Your task to perform on an android device: What's on my calendar tomorrow? Image 0: 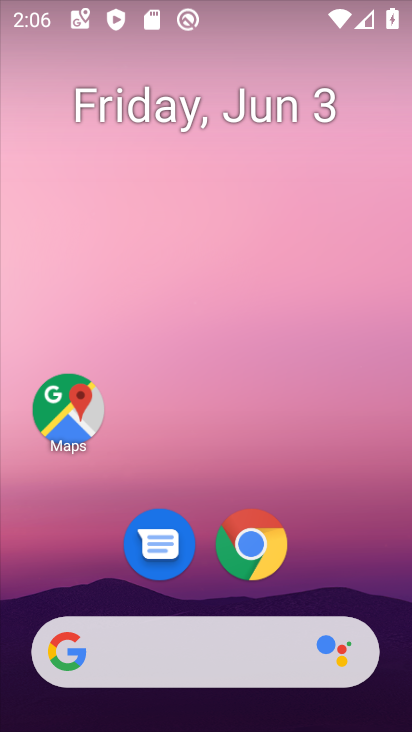
Step 0: drag from (320, 539) to (295, 196)
Your task to perform on an android device: What's on my calendar tomorrow? Image 1: 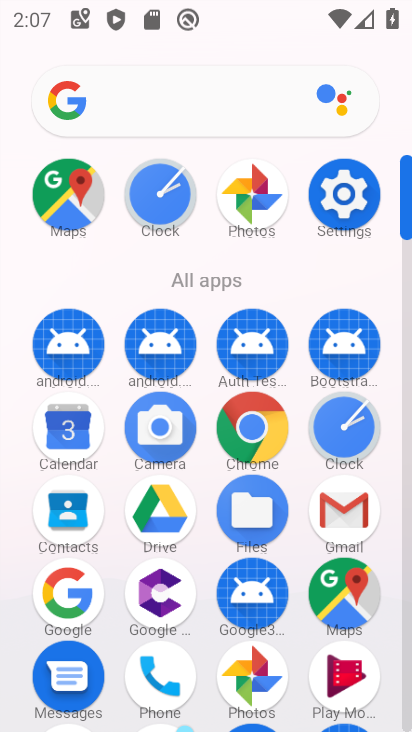
Step 1: click (79, 431)
Your task to perform on an android device: What's on my calendar tomorrow? Image 2: 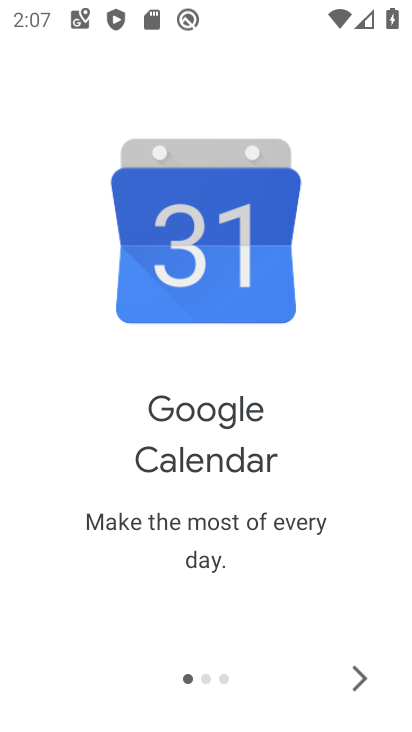
Step 2: click (380, 679)
Your task to perform on an android device: What's on my calendar tomorrow? Image 3: 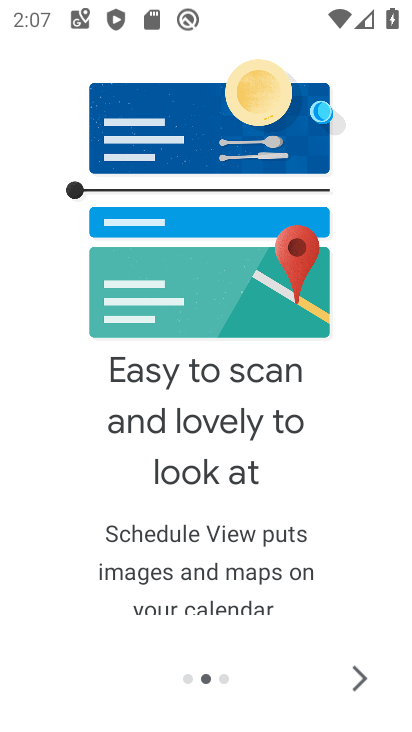
Step 3: click (367, 684)
Your task to perform on an android device: What's on my calendar tomorrow? Image 4: 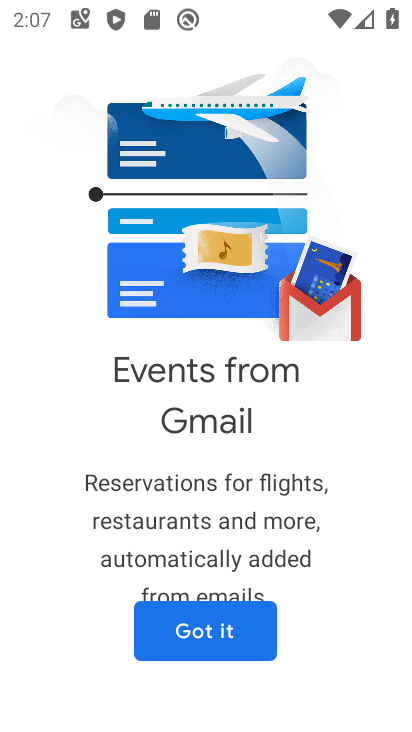
Step 4: click (237, 622)
Your task to perform on an android device: What's on my calendar tomorrow? Image 5: 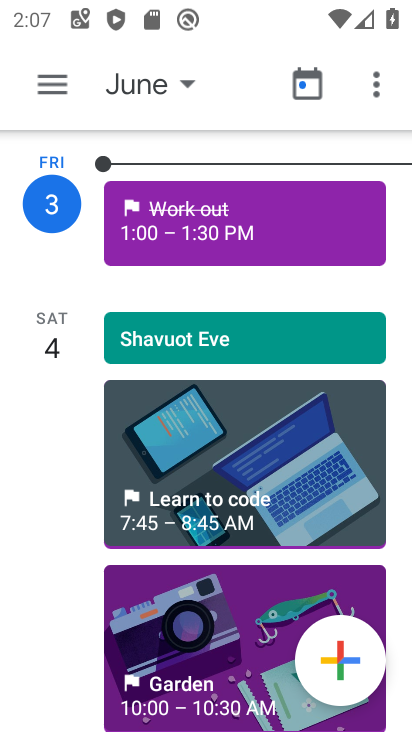
Step 5: task complete